Your task to perform on an android device: Go to Android settings Image 0: 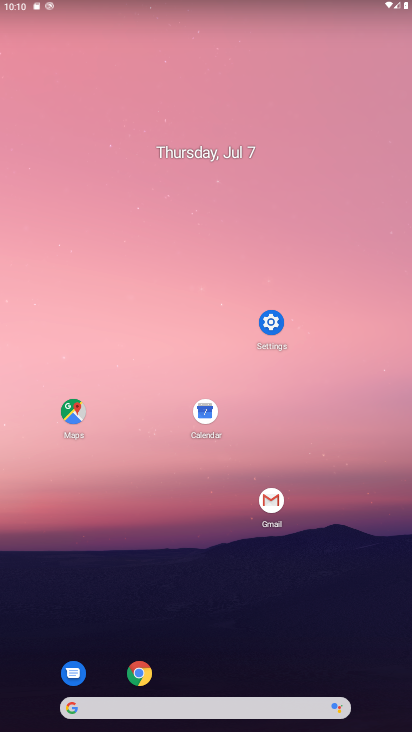
Step 0: click (265, 318)
Your task to perform on an android device: Go to Android settings Image 1: 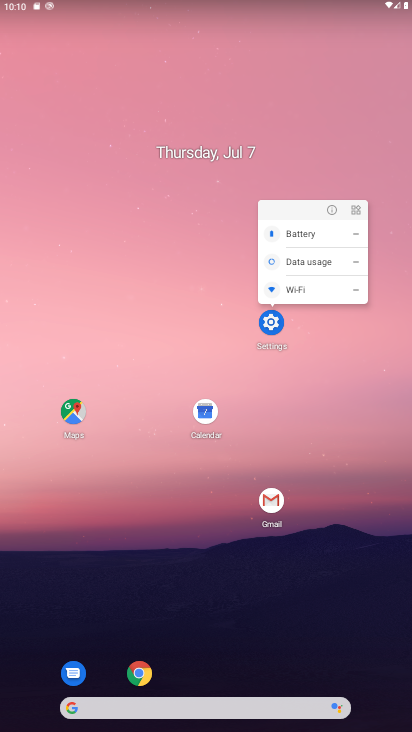
Step 1: click (265, 318)
Your task to perform on an android device: Go to Android settings Image 2: 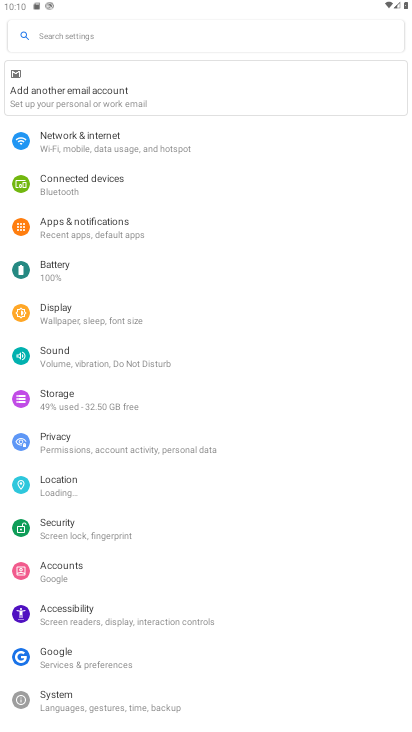
Step 2: task complete